Your task to perform on an android device: Open internet settings Image 0: 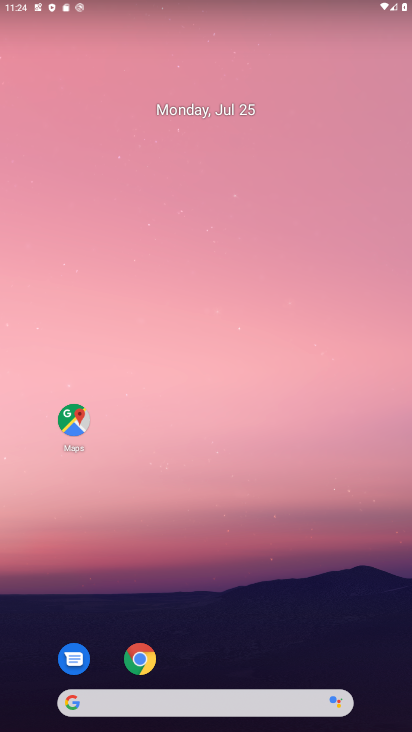
Step 0: drag from (37, 706) to (130, 248)
Your task to perform on an android device: Open internet settings Image 1: 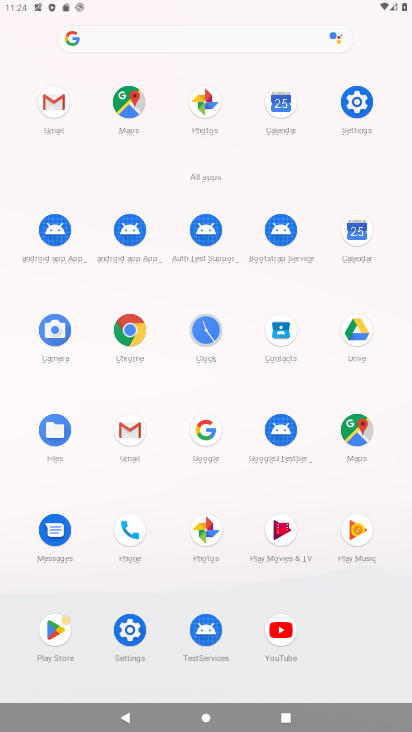
Step 1: click (141, 637)
Your task to perform on an android device: Open internet settings Image 2: 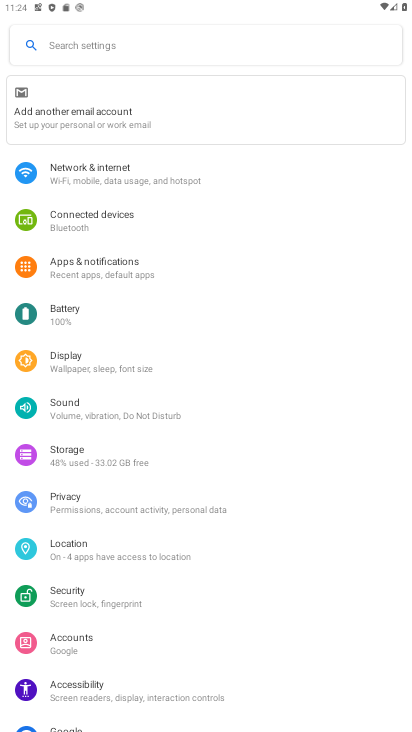
Step 2: click (125, 165)
Your task to perform on an android device: Open internet settings Image 3: 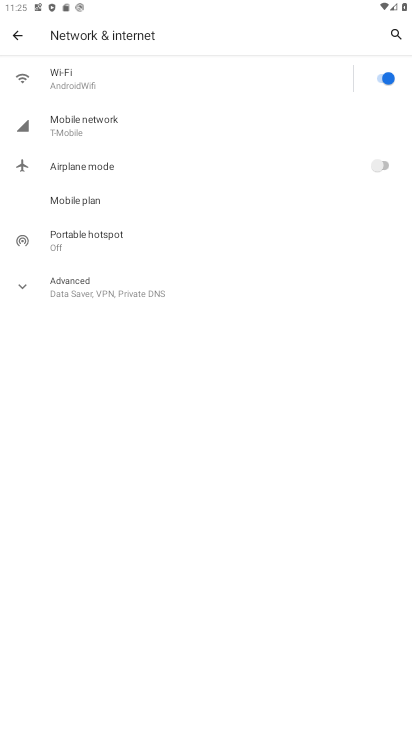
Step 3: task complete